Your task to perform on an android device: toggle airplane mode Image 0: 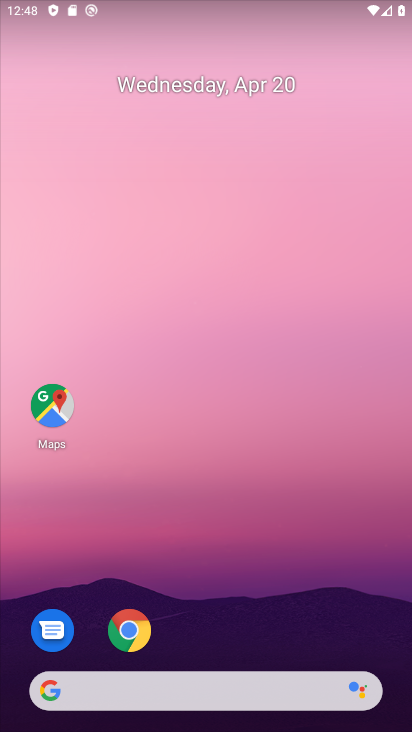
Step 0: drag from (202, 538) to (175, 204)
Your task to perform on an android device: toggle airplane mode Image 1: 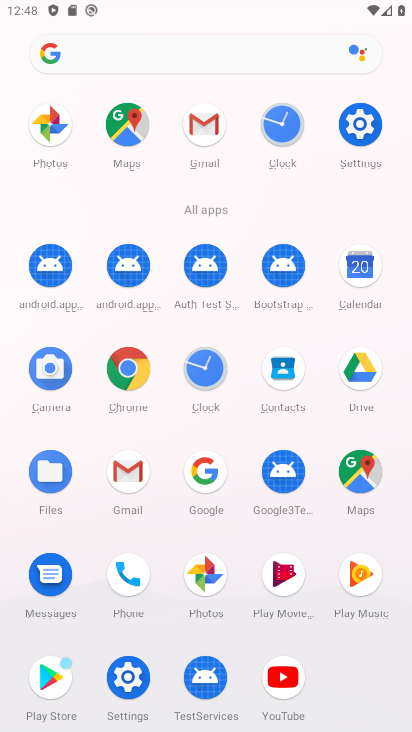
Step 1: click (368, 126)
Your task to perform on an android device: toggle airplane mode Image 2: 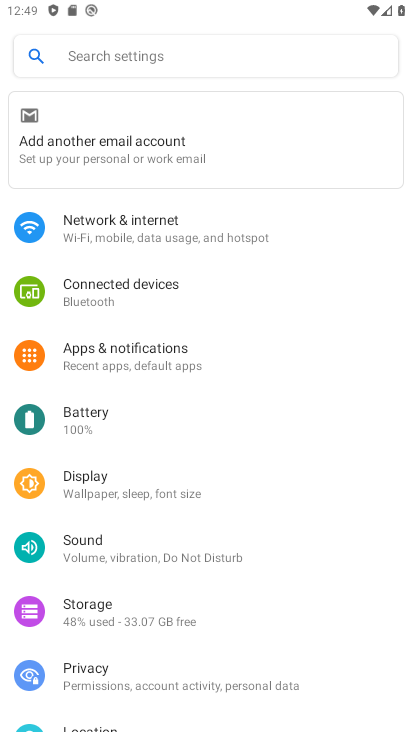
Step 2: click (141, 232)
Your task to perform on an android device: toggle airplane mode Image 3: 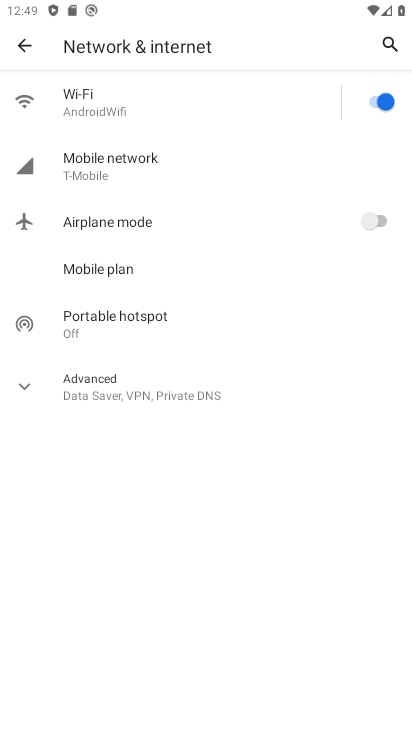
Step 3: click (374, 221)
Your task to perform on an android device: toggle airplane mode Image 4: 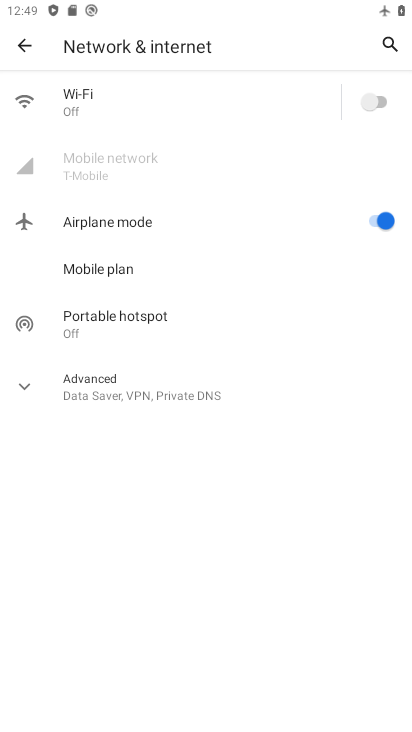
Step 4: task complete